Your task to perform on an android device: toggle javascript in the chrome app Image 0: 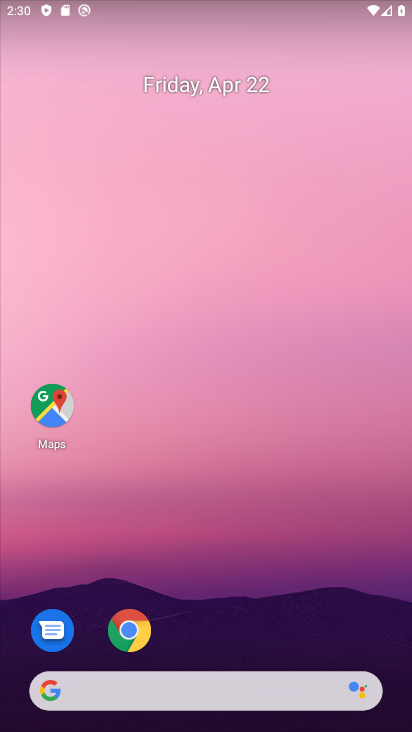
Step 0: drag from (338, 524) to (321, 136)
Your task to perform on an android device: toggle javascript in the chrome app Image 1: 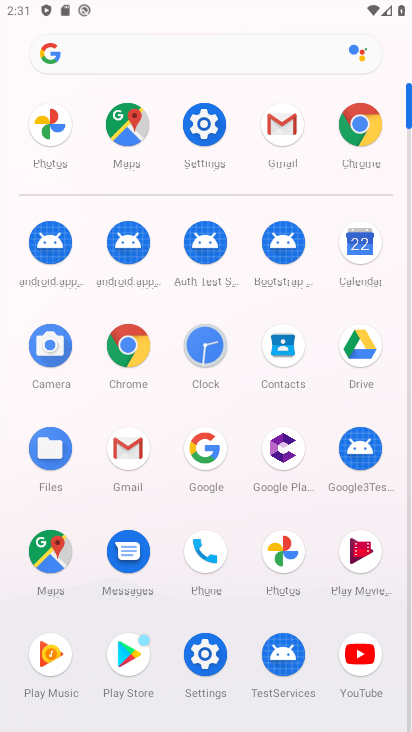
Step 1: click (127, 355)
Your task to perform on an android device: toggle javascript in the chrome app Image 2: 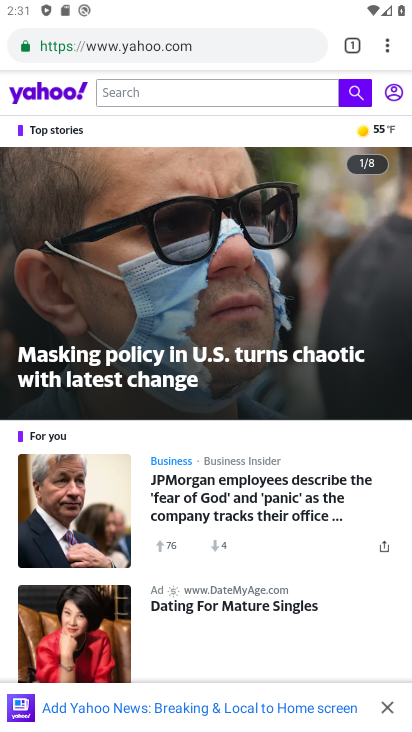
Step 2: drag from (395, 40) to (248, 592)
Your task to perform on an android device: toggle javascript in the chrome app Image 3: 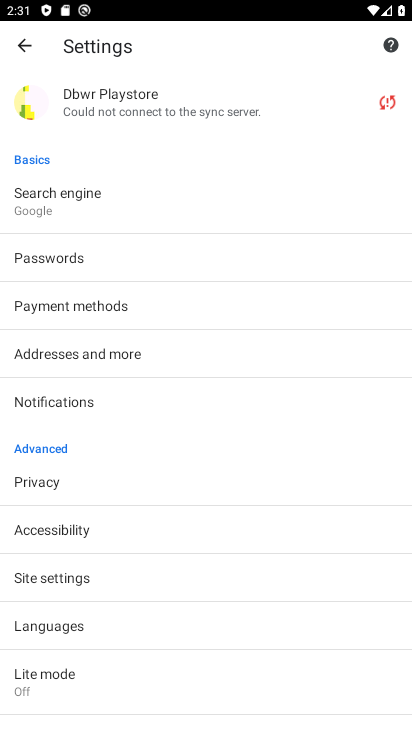
Step 3: click (79, 582)
Your task to perform on an android device: toggle javascript in the chrome app Image 4: 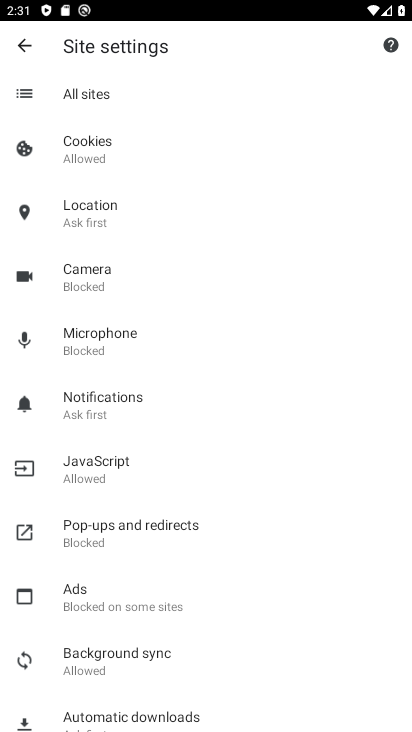
Step 4: click (108, 463)
Your task to perform on an android device: toggle javascript in the chrome app Image 5: 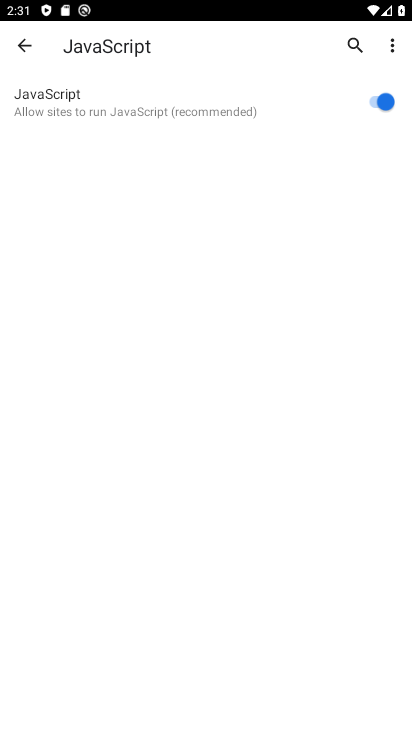
Step 5: click (377, 100)
Your task to perform on an android device: toggle javascript in the chrome app Image 6: 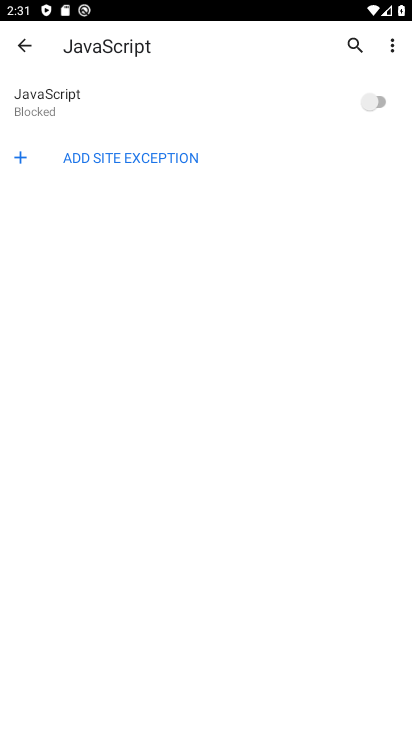
Step 6: task complete